Your task to perform on an android device: Go to Google Image 0: 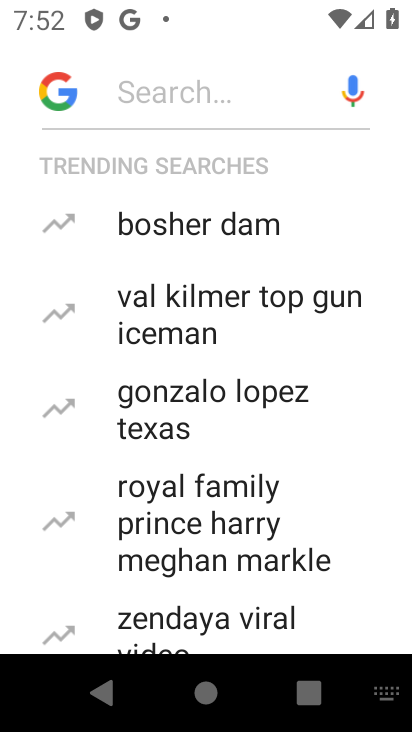
Step 0: task complete